Your task to perform on an android device: find which apps use the phone's location Image 0: 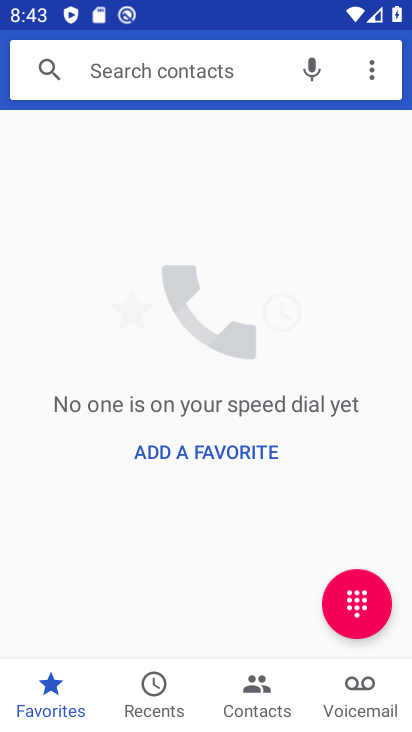
Step 0: press home button
Your task to perform on an android device: find which apps use the phone's location Image 1: 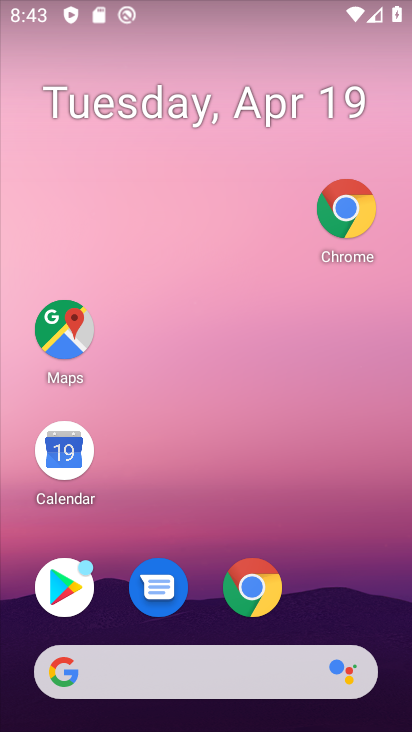
Step 1: click (167, 100)
Your task to perform on an android device: find which apps use the phone's location Image 2: 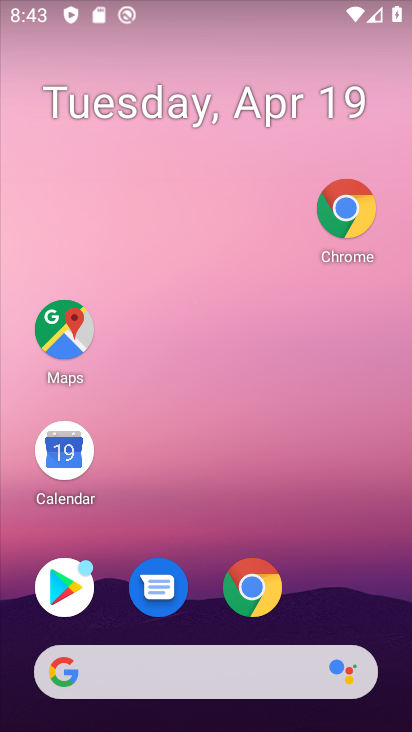
Step 2: drag from (332, 579) to (188, 88)
Your task to perform on an android device: find which apps use the phone's location Image 3: 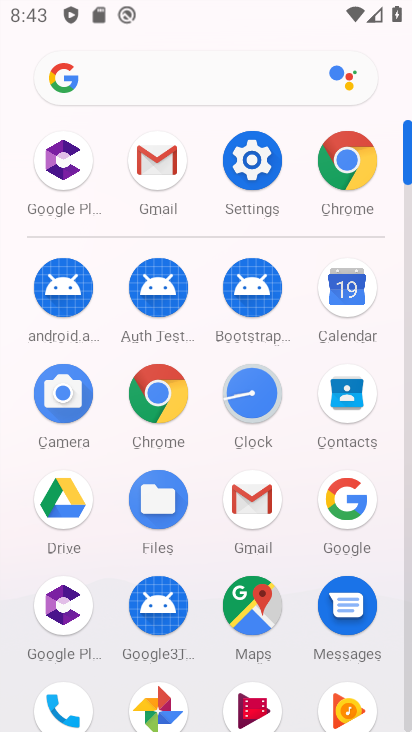
Step 3: click (240, 152)
Your task to perform on an android device: find which apps use the phone's location Image 4: 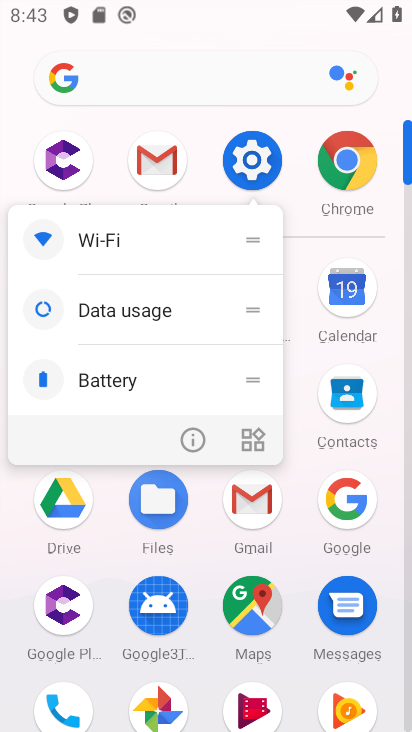
Step 4: click (240, 152)
Your task to perform on an android device: find which apps use the phone's location Image 5: 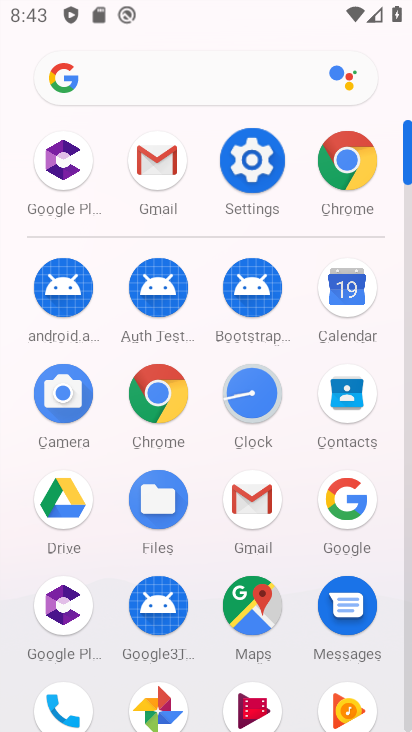
Step 5: click (243, 157)
Your task to perform on an android device: find which apps use the phone's location Image 6: 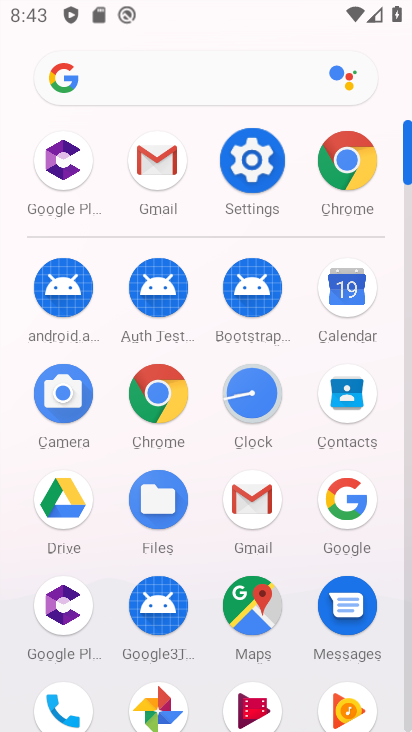
Step 6: click (248, 156)
Your task to perform on an android device: find which apps use the phone's location Image 7: 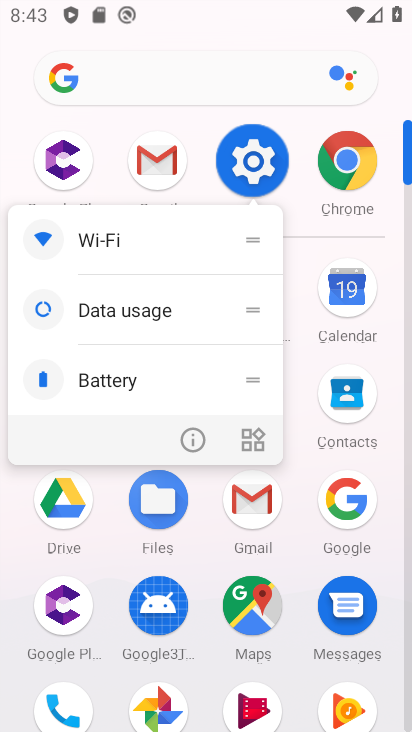
Step 7: click (249, 155)
Your task to perform on an android device: find which apps use the phone's location Image 8: 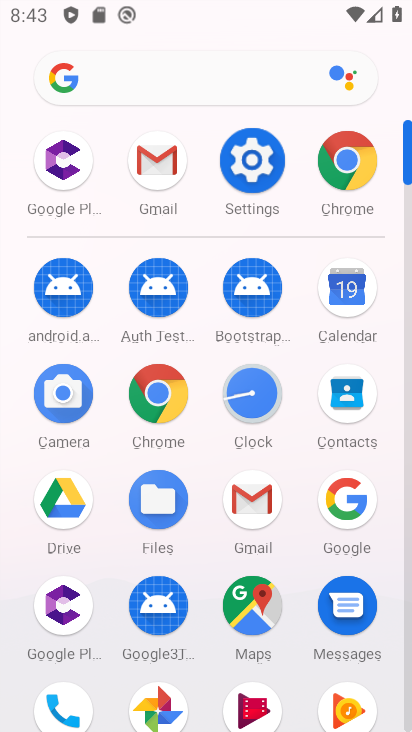
Step 8: click (250, 156)
Your task to perform on an android device: find which apps use the phone's location Image 9: 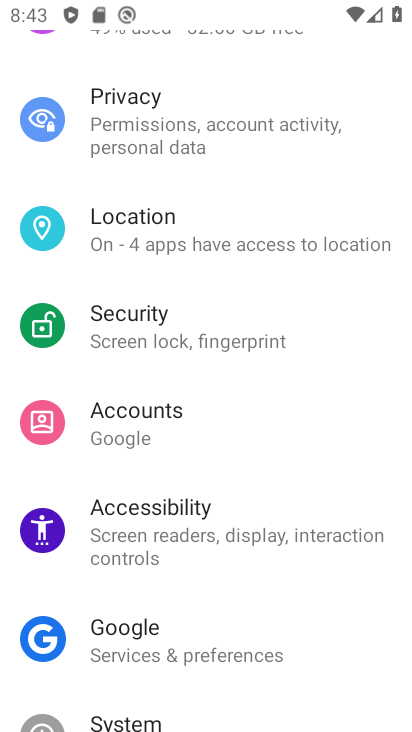
Step 9: click (153, 236)
Your task to perform on an android device: find which apps use the phone's location Image 10: 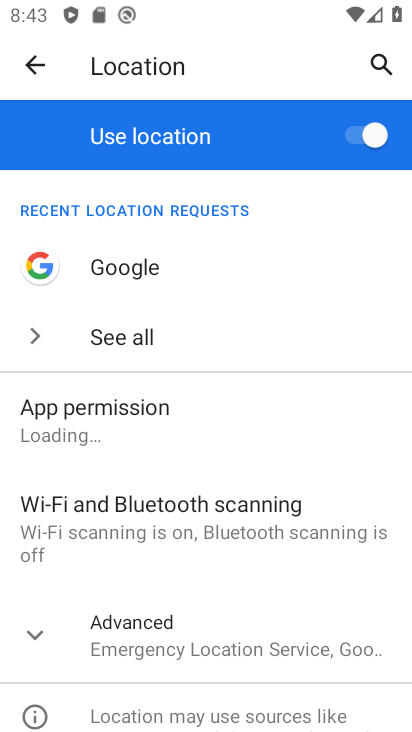
Step 10: click (153, 167)
Your task to perform on an android device: find which apps use the phone's location Image 11: 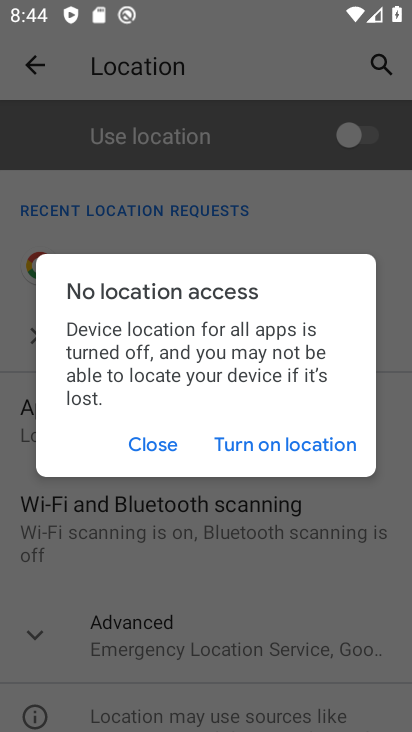
Step 11: click (134, 435)
Your task to perform on an android device: find which apps use the phone's location Image 12: 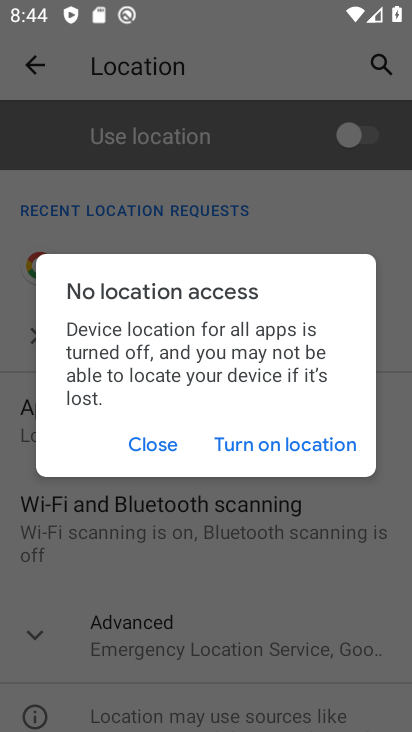
Step 12: click (138, 441)
Your task to perform on an android device: find which apps use the phone's location Image 13: 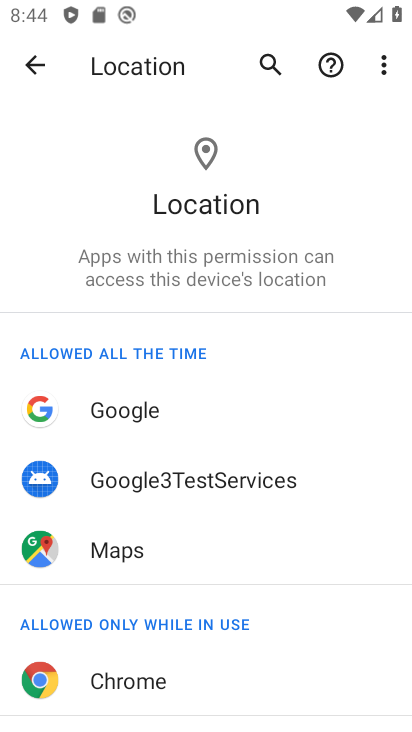
Step 13: task complete